Your task to perform on an android device: Open calendar and show me the second week of next month Image 0: 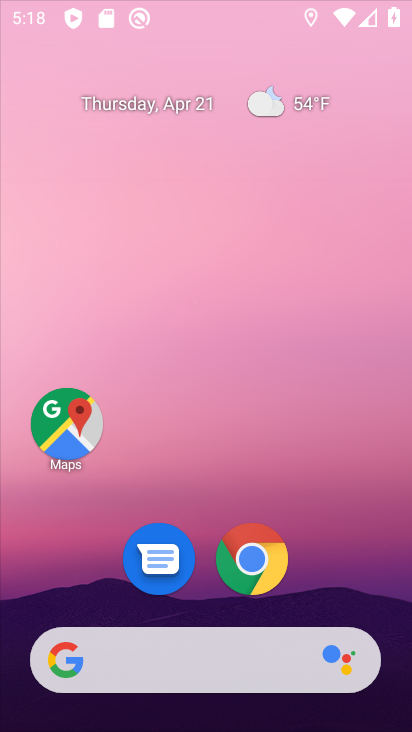
Step 0: drag from (347, 455) to (368, 175)
Your task to perform on an android device: Open calendar and show me the second week of next month Image 1: 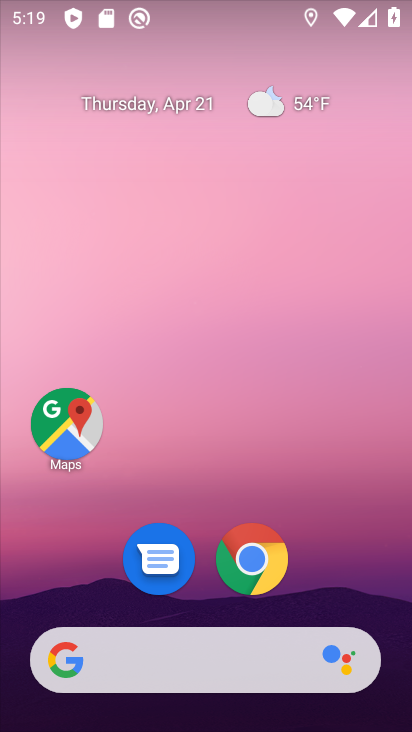
Step 1: drag from (324, 405) to (356, 38)
Your task to perform on an android device: Open calendar and show me the second week of next month Image 2: 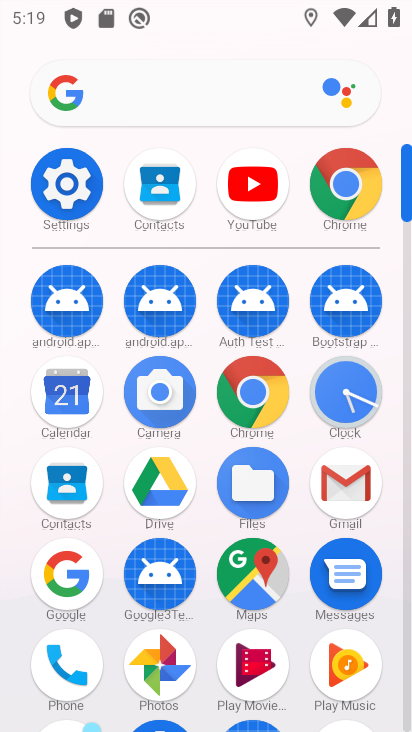
Step 2: click (66, 410)
Your task to perform on an android device: Open calendar and show me the second week of next month Image 3: 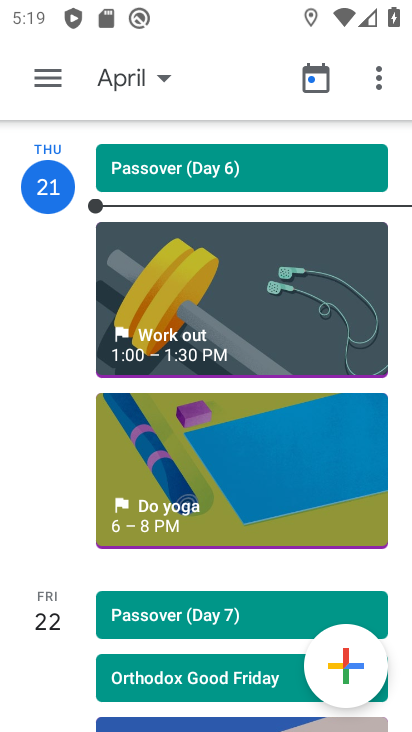
Step 3: click (156, 80)
Your task to perform on an android device: Open calendar and show me the second week of next month Image 4: 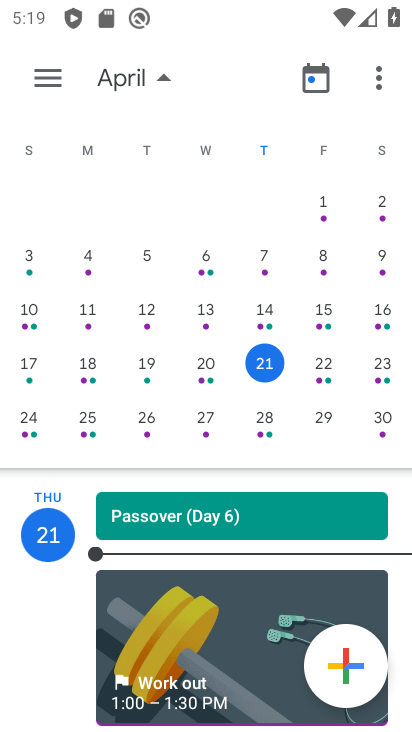
Step 4: drag from (355, 349) to (31, 375)
Your task to perform on an android device: Open calendar and show me the second week of next month Image 5: 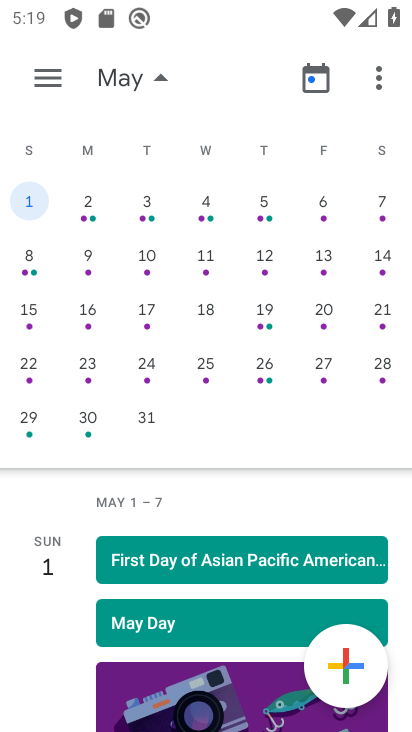
Step 5: click (386, 253)
Your task to perform on an android device: Open calendar and show me the second week of next month Image 6: 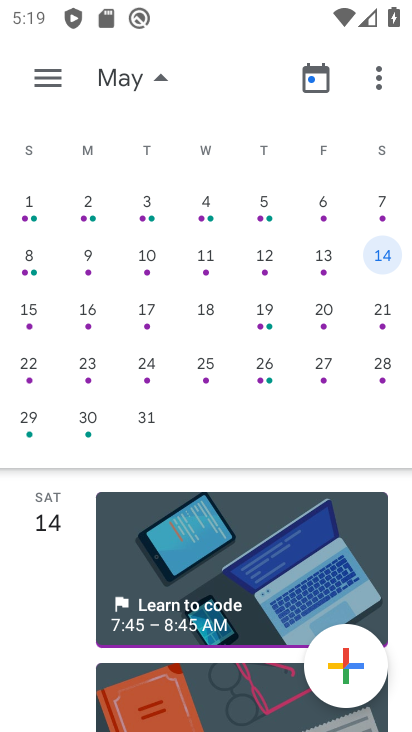
Step 6: task complete